Your task to perform on an android device: turn on wifi Image 0: 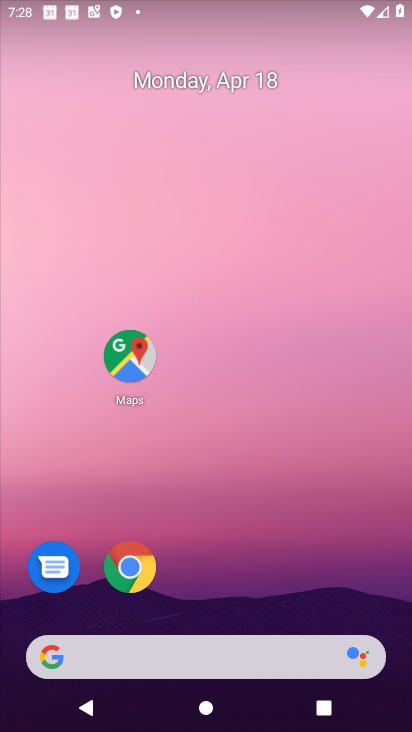
Step 0: drag from (248, 661) to (286, 131)
Your task to perform on an android device: turn on wifi Image 1: 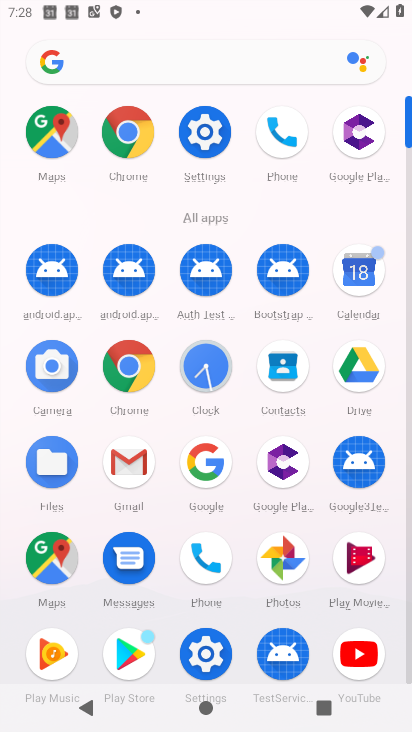
Step 1: click (198, 153)
Your task to perform on an android device: turn on wifi Image 2: 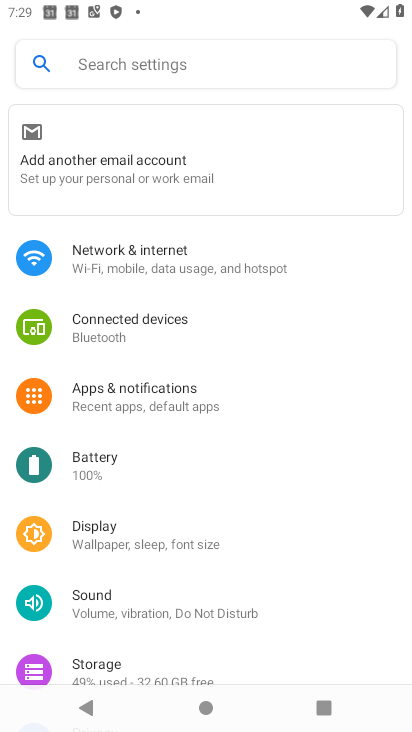
Step 2: click (153, 280)
Your task to perform on an android device: turn on wifi Image 3: 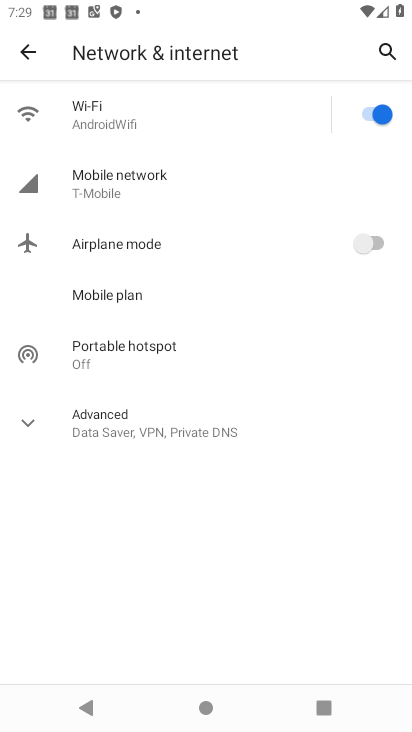
Step 3: click (149, 126)
Your task to perform on an android device: turn on wifi Image 4: 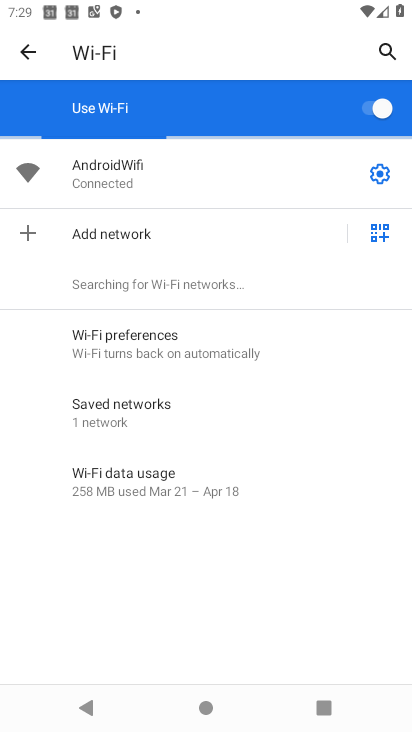
Step 4: click (375, 107)
Your task to perform on an android device: turn on wifi Image 5: 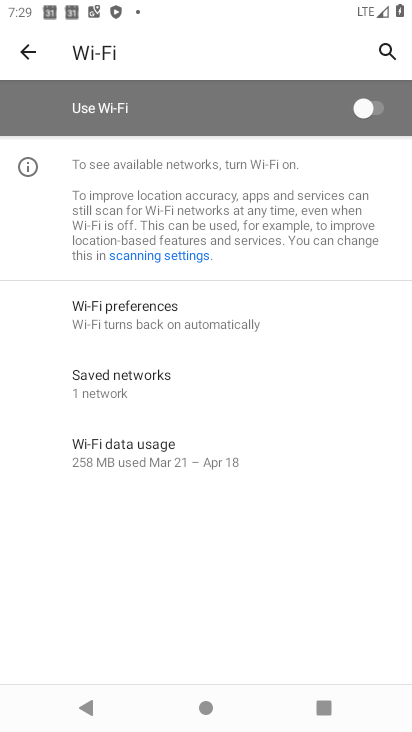
Step 5: click (374, 108)
Your task to perform on an android device: turn on wifi Image 6: 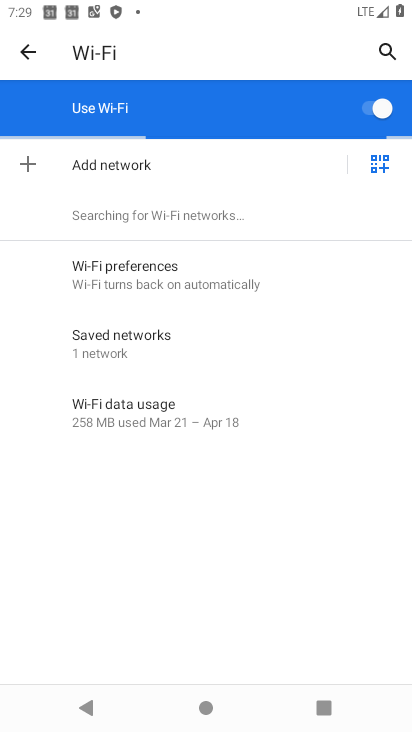
Step 6: task complete